Your task to perform on an android device: Empty the shopping cart on walmart. Search for lg ultragear on walmart, select the first entry, add it to the cart, then select checkout. Image 0: 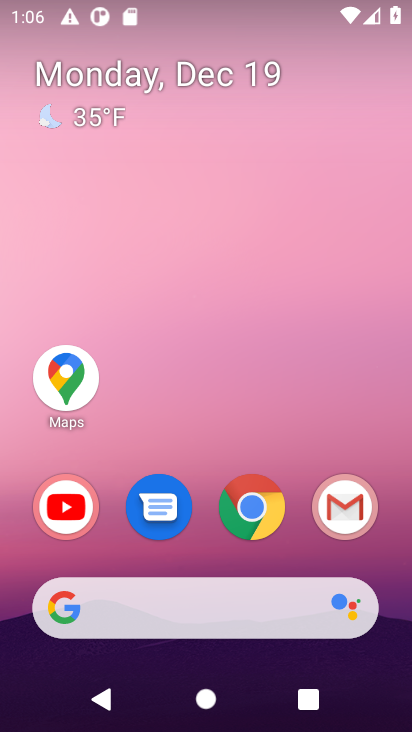
Step 0: click (255, 502)
Your task to perform on an android device: Empty the shopping cart on walmart. Search for lg ultragear on walmart, select the first entry, add it to the cart, then select checkout. Image 1: 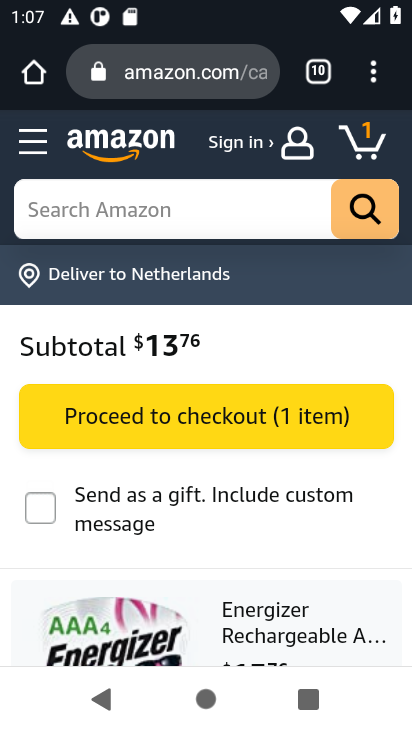
Step 1: click (162, 80)
Your task to perform on an android device: Empty the shopping cart on walmart. Search for lg ultragear on walmart, select the first entry, add it to the cart, then select checkout. Image 2: 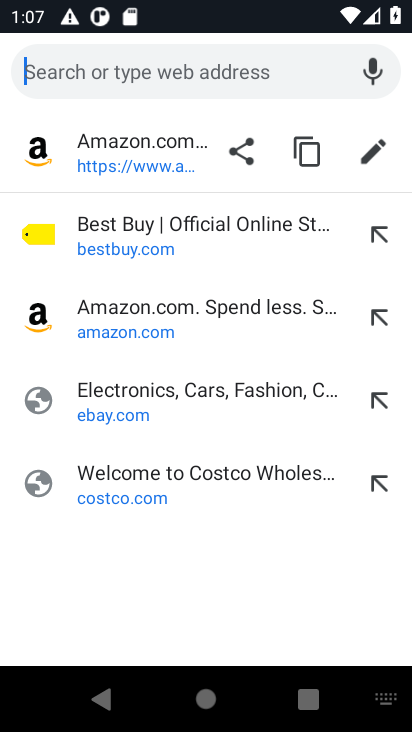
Step 2: type "walmart.com"
Your task to perform on an android device: Empty the shopping cart on walmart. Search for lg ultragear on walmart, select the first entry, add it to the cart, then select checkout. Image 3: 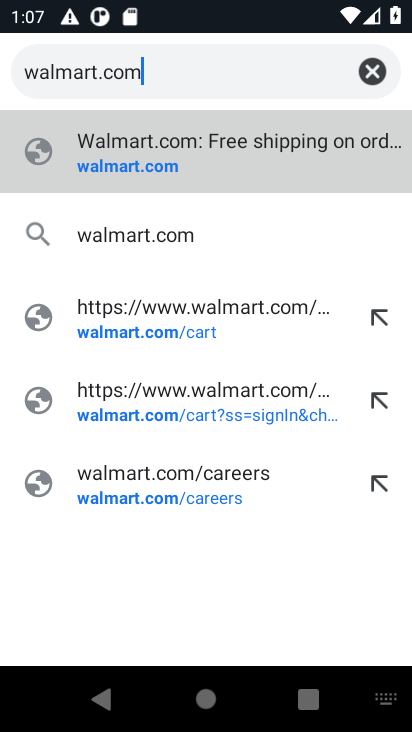
Step 3: click (123, 170)
Your task to perform on an android device: Empty the shopping cart on walmart. Search for lg ultragear on walmart, select the first entry, add it to the cart, then select checkout. Image 4: 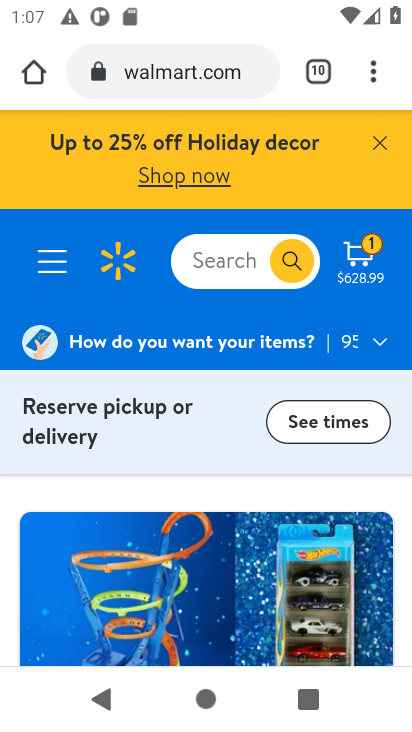
Step 4: click (361, 264)
Your task to perform on an android device: Empty the shopping cart on walmart. Search for lg ultragear on walmart, select the first entry, add it to the cart, then select checkout. Image 5: 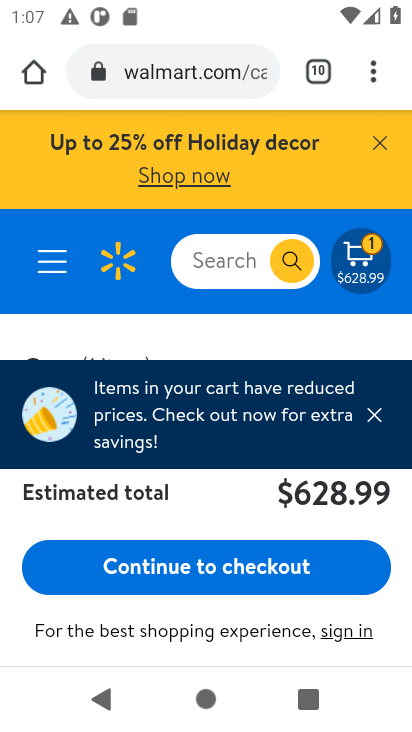
Step 5: drag from (200, 440) to (195, 242)
Your task to perform on an android device: Empty the shopping cart on walmart. Search for lg ultragear on walmart, select the first entry, add it to the cart, then select checkout. Image 6: 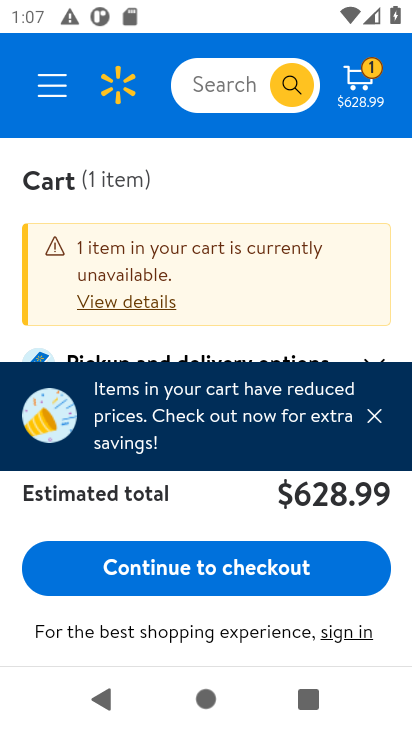
Step 6: click (374, 421)
Your task to perform on an android device: Empty the shopping cart on walmart. Search for lg ultragear on walmart, select the first entry, add it to the cart, then select checkout. Image 7: 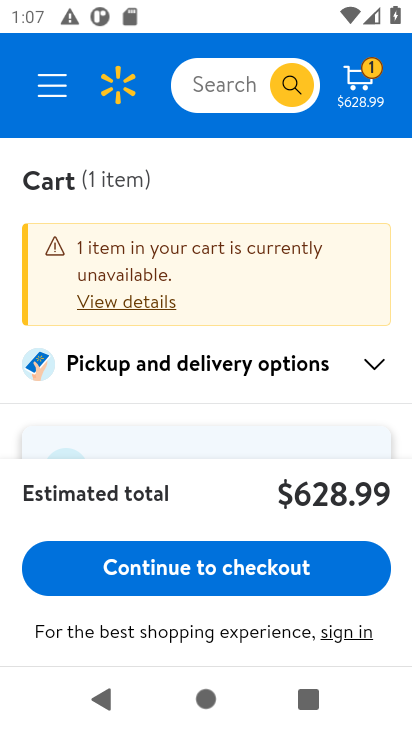
Step 7: drag from (146, 408) to (154, 212)
Your task to perform on an android device: Empty the shopping cart on walmart. Search for lg ultragear on walmart, select the first entry, add it to the cart, then select checkout. Image 8: 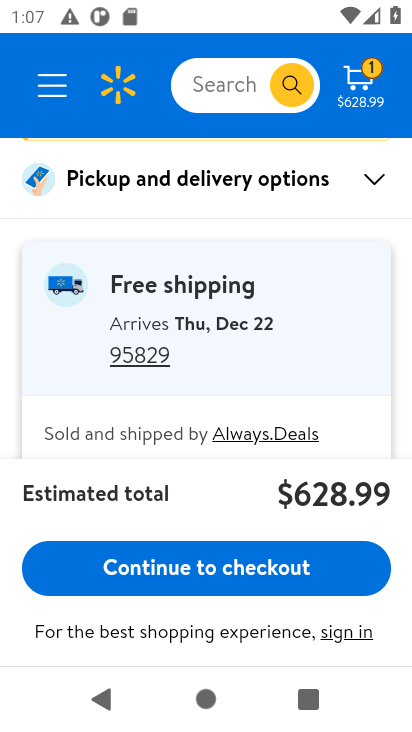
Step 8: drag from (151, 383) to (169, 179)
Your task to perform on an android device: Empty the shopping cart on walmart. Search for lg ultragear on walmart, select the first entry, add it to the cart, then select checkout. Image 9: 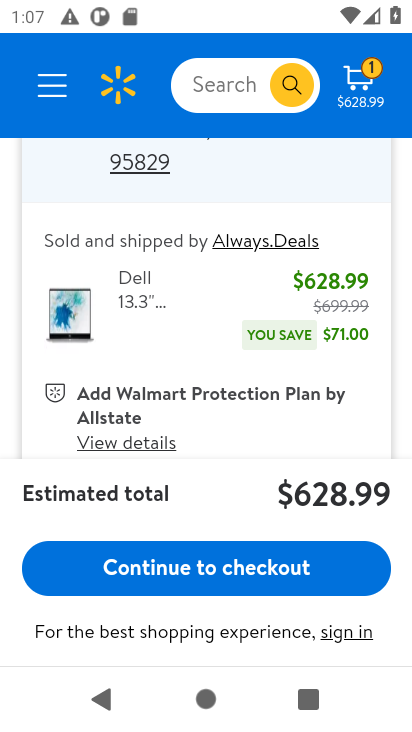
Step 9: drag from (171, 331) to (185, 170)
Your task to perform on an android device: Empty the shopping cart on walmart. Search for lg ultragear on walmart, select the first entry, add it to the cart, then select checkout. Image 10: 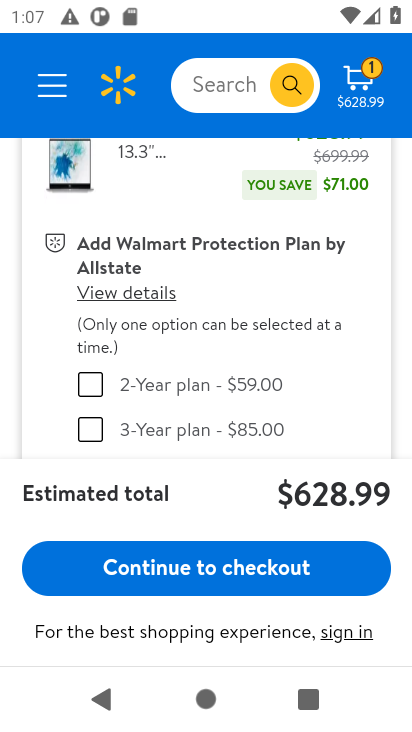
Step 10: drag from (170, 326) to (176, 139)
Your task to perform on an android device: Empty the shopping cart on walmart. Search for lg ultragear on walmart, select the first entry, add it to the cart, then select checkout. Image 11: 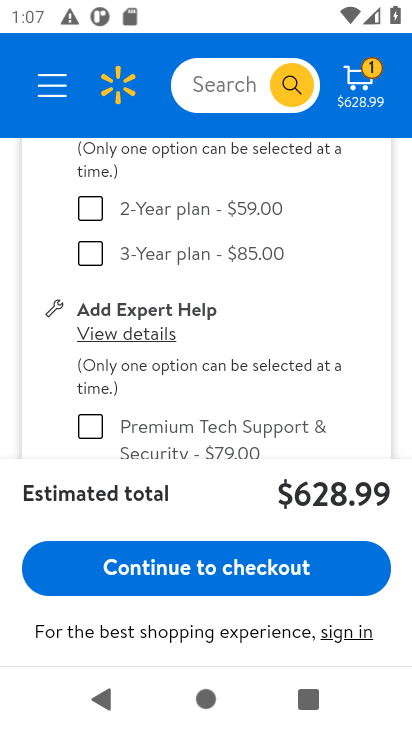
Step 11: drag from (152, 293) to (164, 110)
Your task to perform on an android device: Empty the shopping cart on walmart. Search for lg ultragear on walmart, select the first entry, add it to the cart, then select checkout. Image 12: 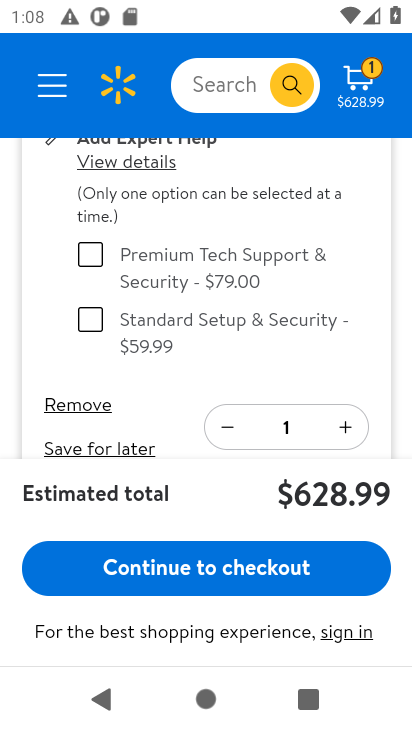
Step 12: click (87, 404)
Your task to perform on an android device: Empty the shopping cart on walmart. Search for lg ultragear on walmart, select the first entry, add it to the cart, then select checkout. Image 13: 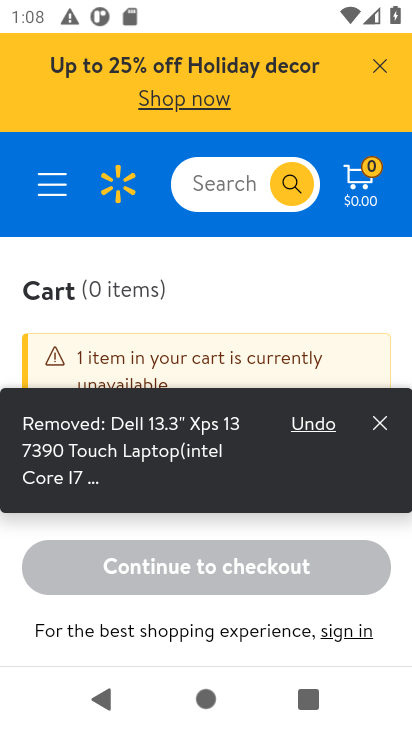
Step 13: click (380, 422)
Your task to perform on an android device: Empty the shopping cart on walmart. Search for lg ultragear on walmart, select the first entry, add it to the cart, then select checkout. Image 14: 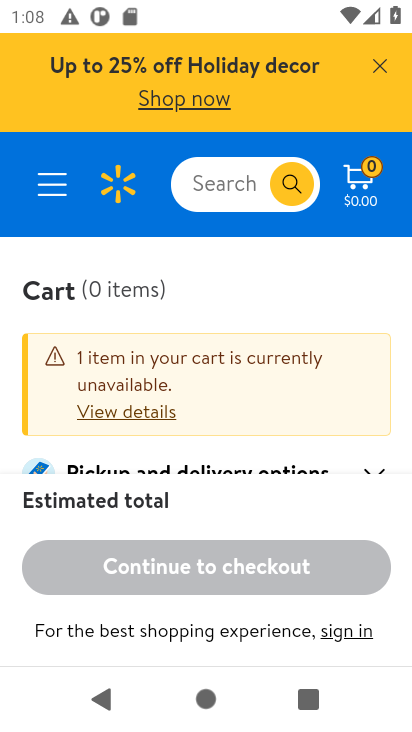
Step 14: drag from (134, 369) to (143, 144)
Your task to perform on an android device: Empty the shopping cart on walmart. Search for lg ultragear on walmart, select the first entry, add it to the cart, then select checkout. Image 15: 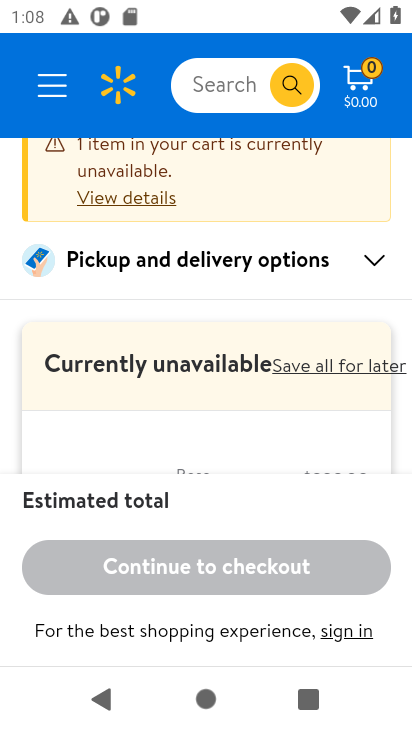
Step 15: drag from (143, 269) to (136, 528)
Your task to perform on an android device: Empty the shopping cart on walmart. Search for lg ultragear on walmart, select the first entry, add it to the cart, then select checkout. Image 16: 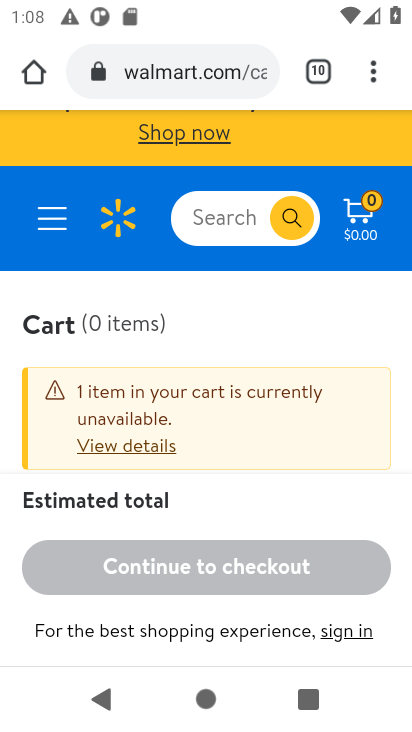
Step 16: click (214, 216)
Your task to perform on an android device: Empty the shopping cart on walmart. Search for lg ultragear on walmart, select the first entry, add it to the cart, then select checkout. Image 17: 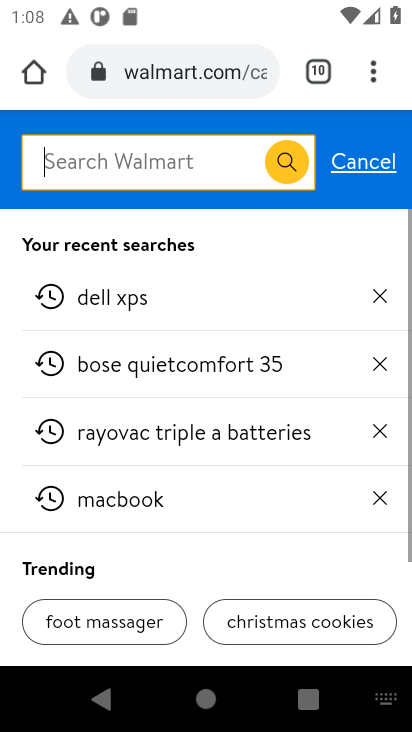
Step 17: type "lg ultragear"
Your task to perform on an android device: Empty the shopping cart on walmart. Search for lg ultragear on walmart, select the first entry, add it to the cart, then select checkout. Image 18: 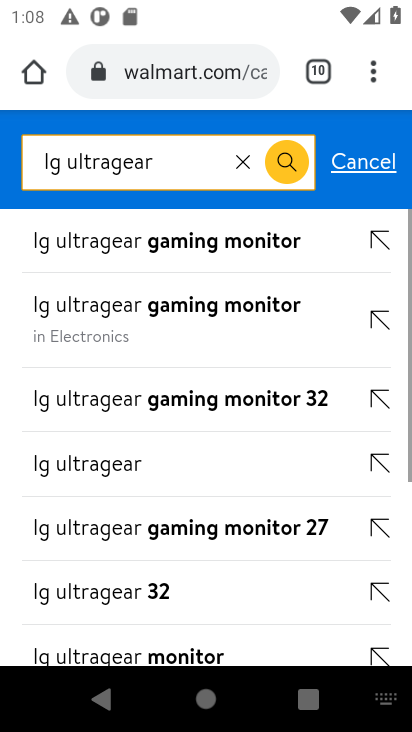
Step 18: click (98, 471)
Your task to perform on an android device: Empty the shopping cart on walmart. Search for lg ultragear on walmart, select the first entry, add it to the cart, then select checkout. Image 19: 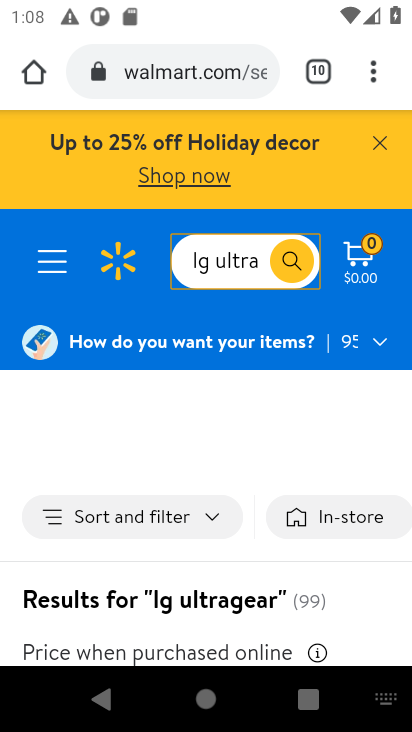
Step 19: drag from (179, 496) to (190, 133)
Your task to perform on an android device: Empty the shopping cart on walmart. Search for lg ultragear on walmart, select the first entry, add it to the cart, then select checkout. Image 20: 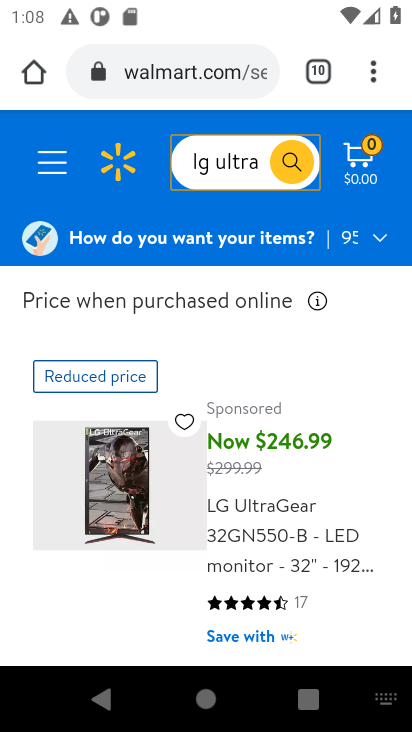
Step 20: drag from (193, 451) to (221, 242)
Your task to perform on an android device: Empty the shopping cart on walmart. Search for lg ultragear on walmart, select the first entry, add it to the cart, then select checkout. Image 21: 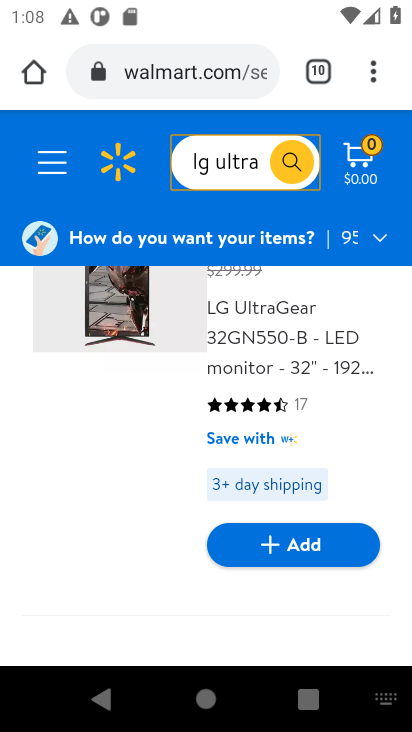
Step 21: click (286, 550)
Your task to perform on an android device: Empty the shopping cart on walmart. Search for lg ultragear on walmart, select the first entry, add it to the cart, then select checkout. Image 22: 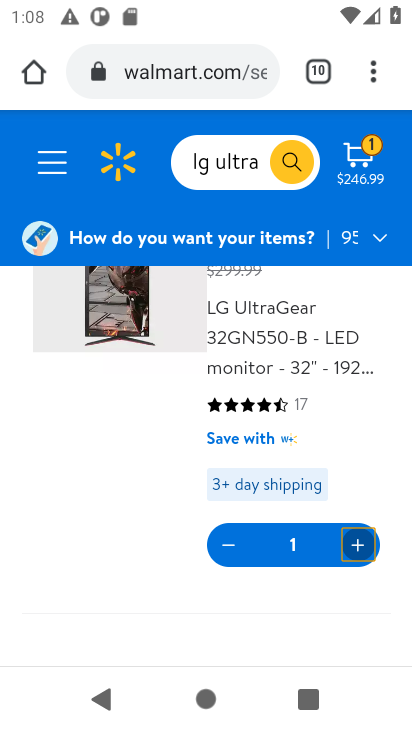
Step 22: click (365, 167)
Your task to perform on an android device: Empty the shopping cart on walmart. Search for lg ultragear on walmart, select the first entry, add it to the cart, then select checkout. Image 23: 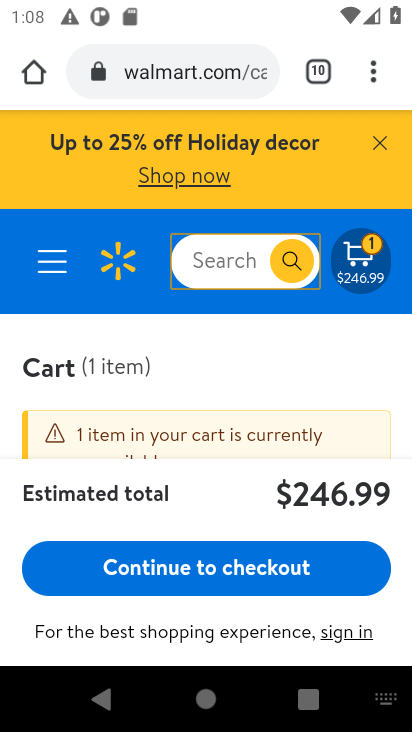
Step 23: click (210, 577)
Your task to perform on an android device: Empty the shopping cart on walmart. Search for lg ultragear on walmart, select the first entry, add it to the cart, then select checkout. Image 24: 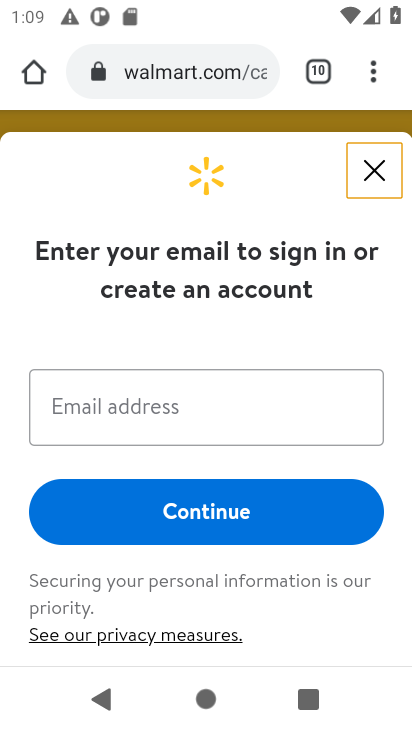
Step 24: task complete